Your task to perform on an android device: Find coffee shops on Maps Image 0: 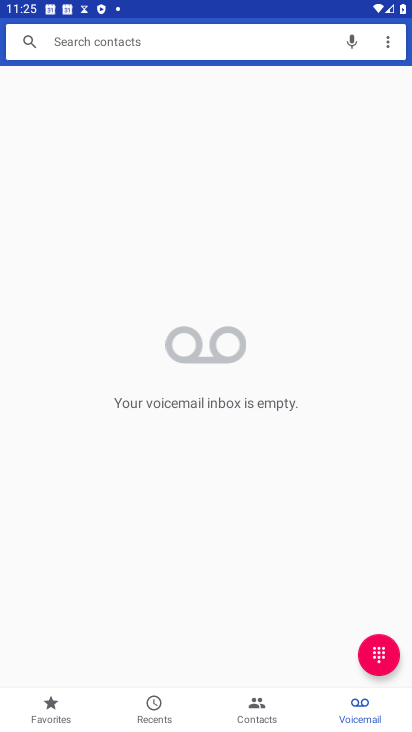
Step 0: drag from (190, 555) to (210, 431)
Your task to perform on an android device: Find coffee shops on Maps Image 1: 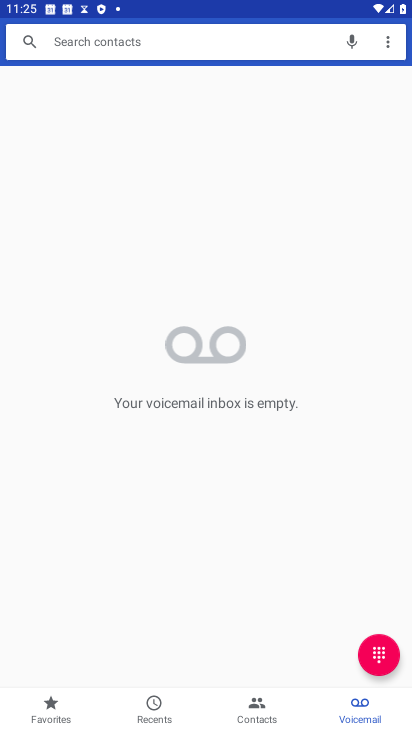
Step 1: click (339, 262)
Your task to perform on an android device: Find coffee shops on Maps Image 2: 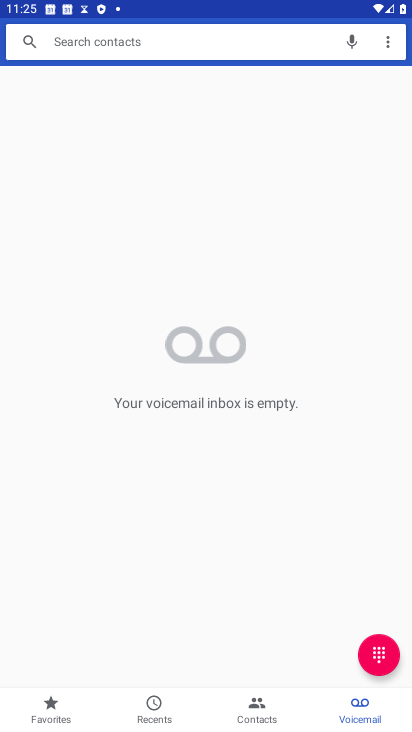
Step 2: press home button
Your task to perform on an android device: Find coffee shops on Maps Image 3: 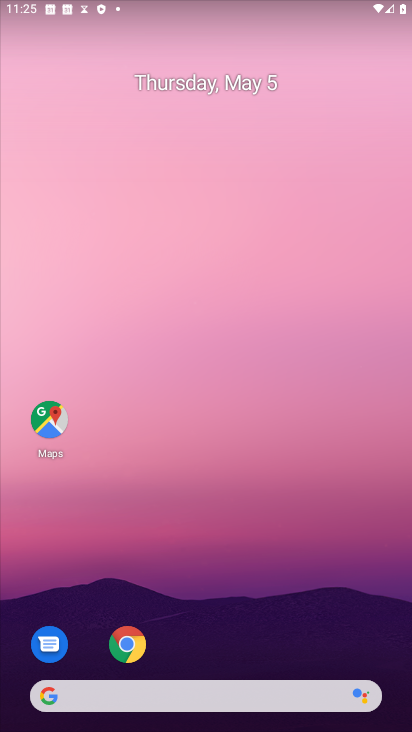
Step 3: drag from (245, 628) to (284, 347)
Your task to perform on an android device: Find coffee shops on Maps Image 4: 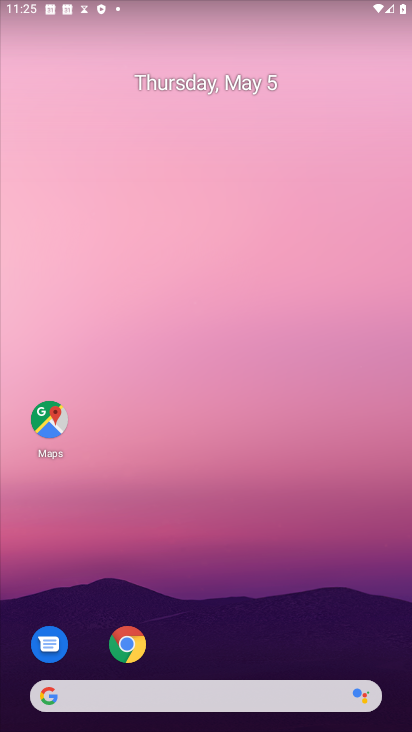
Step 4: drag from (172, 678) to (184, 173)
Your task to perform on an android device: Find coffee shops on Maps Image 5: 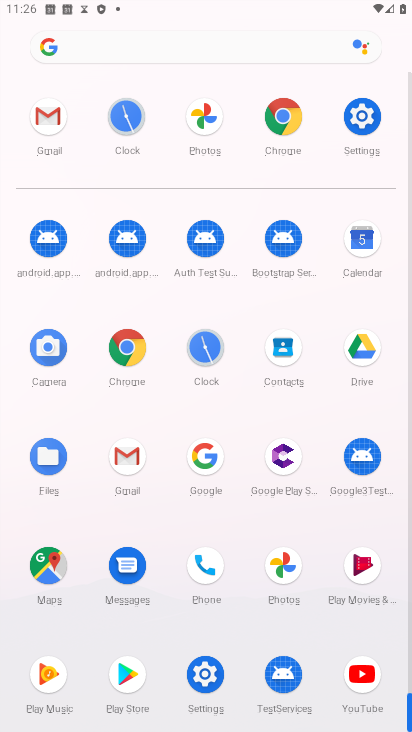
Step 5: click (41, 560)
Your task to perform on an android device: Find coffee shops on Maps Image 6: 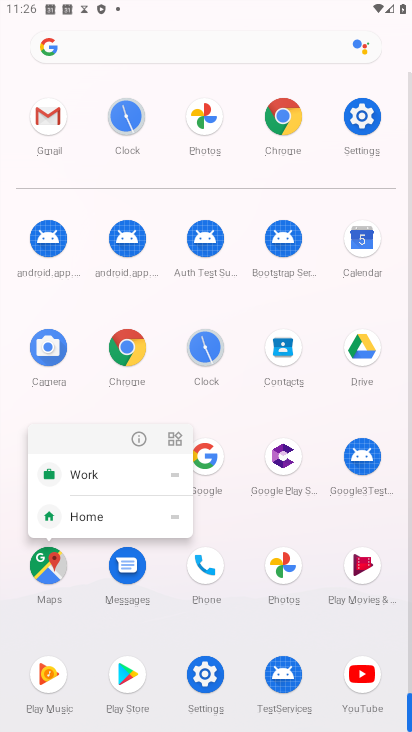
Step 6: click (130, 435)
Your task to perform on an android device: Find coffee shops on Maps Image 7: 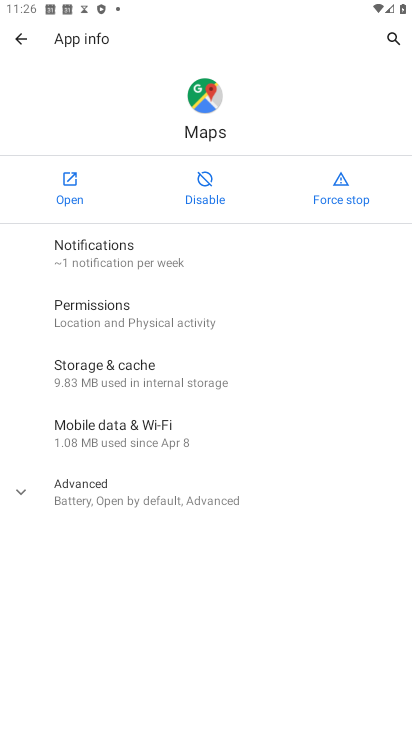
Step 7: click (74, 177)
Your task to perform on an android device: Find coffee shops on Maps Image 8: 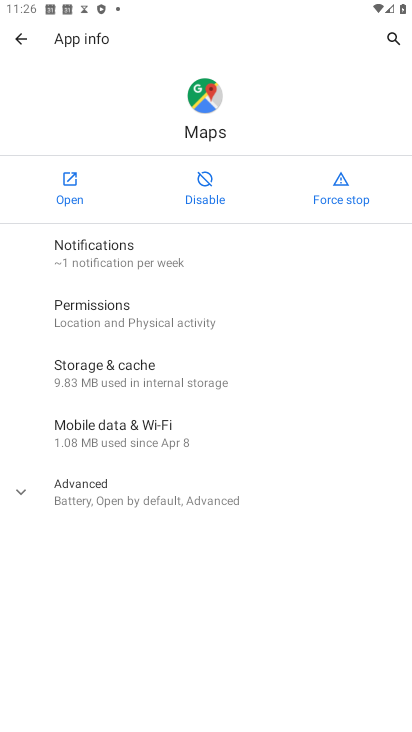
Step 8: click (74, 177)
Your task to perform on an android device: Find coffee shops on Maps Image 9: 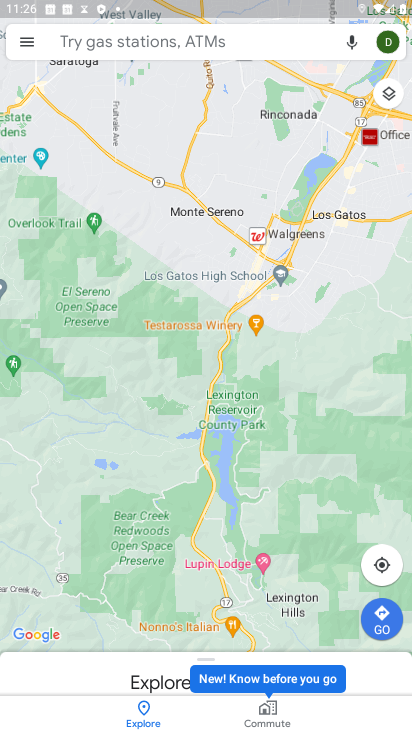
Step 9: click (183, 43)
Your task to perform on an android device: Find coffee shops on Maps Image 10: 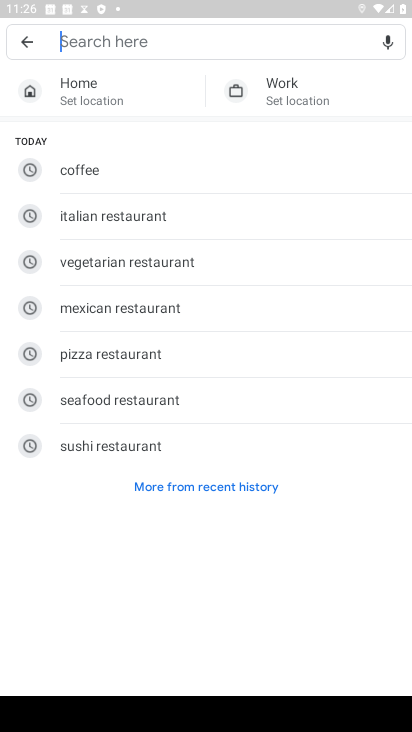
Step 10: type "coffee"
Your task to perform on an android device: Find coffee shops on Maps Image 11: 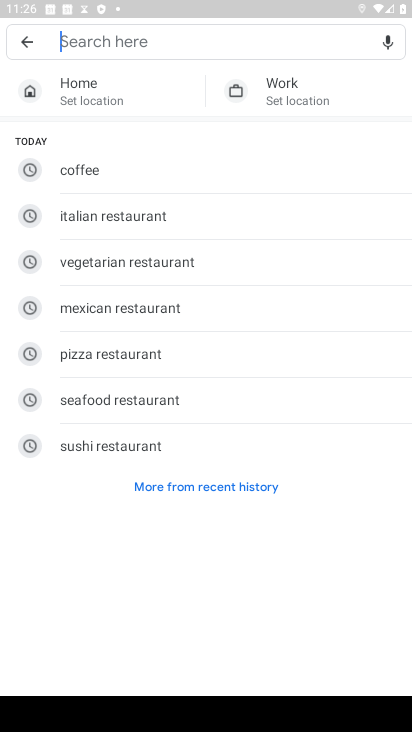
Step 11: click (94, 167)
Your task to perform on an android device: Find coffee shops on Maps Image 12: 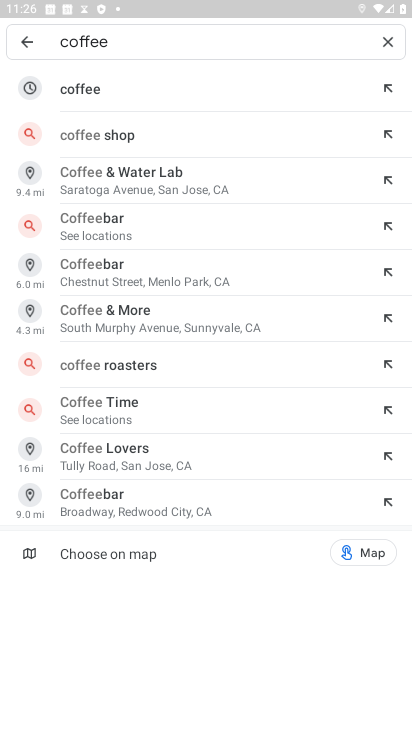
Step 12: click (78, 147)
Your task to perform on an android device: Find coffee shops on Maps Image 13: 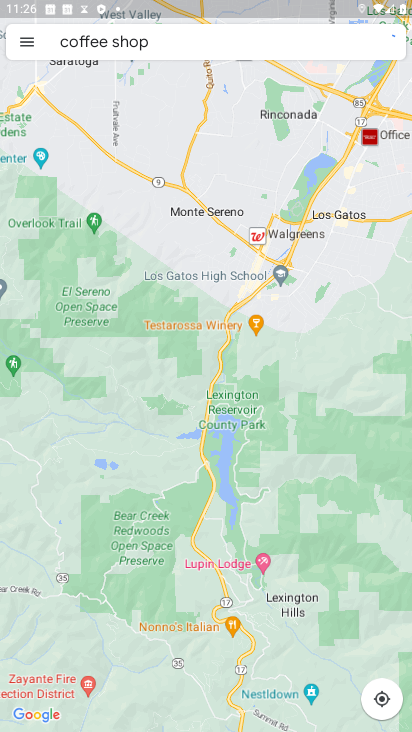
Step 13: drag from (225, 527) to (210, 112)
Your task to perform on an android device: Find coffee shops on Maps Image 14: 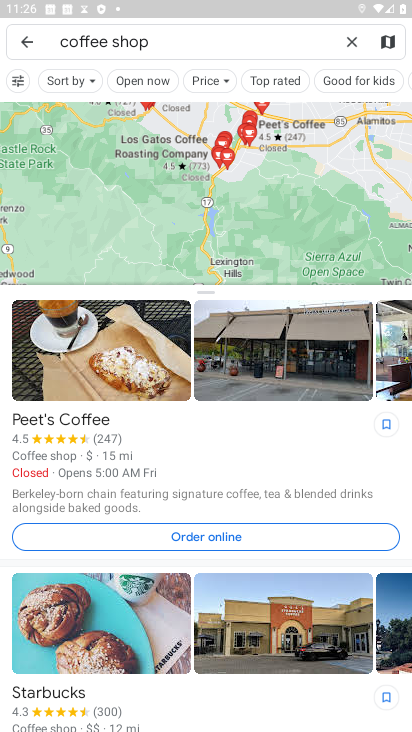
Step 14: drag from (189, 568) to (403, 717)
Your task to perform on an android device: Find coffee shops on Maps Image 15: 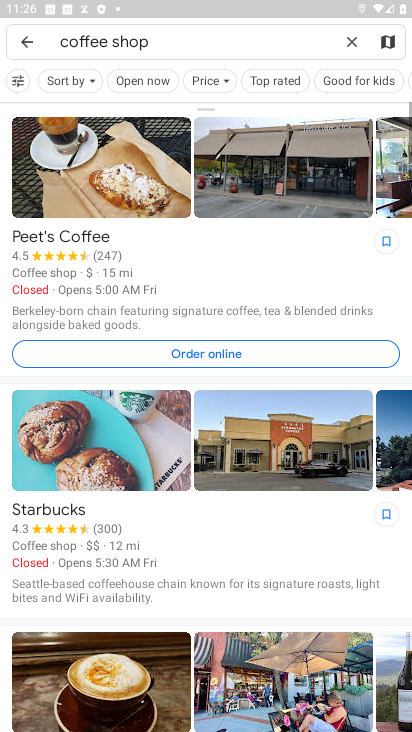
Step 15: drag from (188, 574) to (226, 319)
Your task to perform on an android device: Find coffee shops on Maps Image 16: 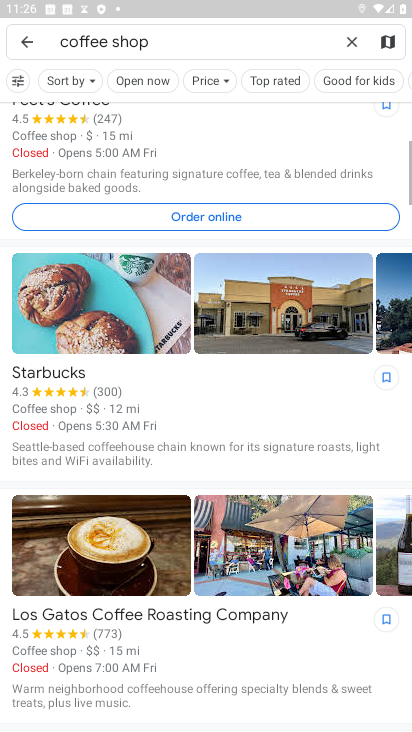
Step 16: drag from (272, 638) to (206, 323)
Your task to perform on an android device: Find coffee shops on Maps Image 17: 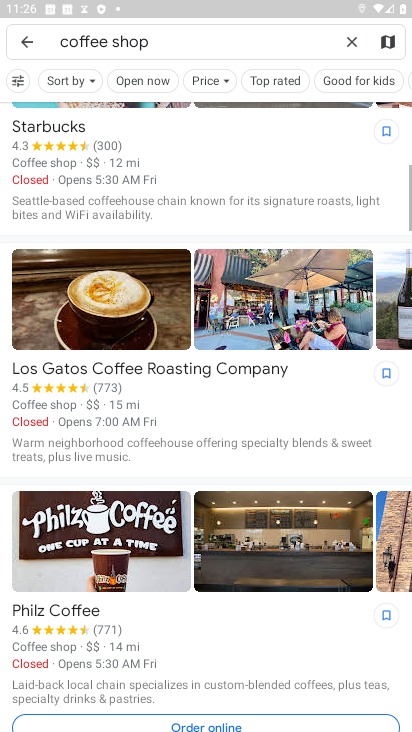
Step 17: drag from (288, 555) to (244, 276)
Your task to perform on an android device: Find coffee shops on Maps Image 18: 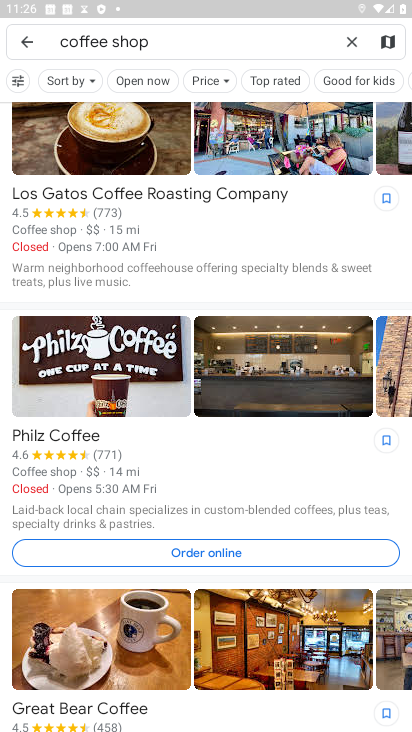
Step 18: drag from (195, 500) to (205, 239)
Your task to perform on an android device: Find coffee shops on Maps Image 19: 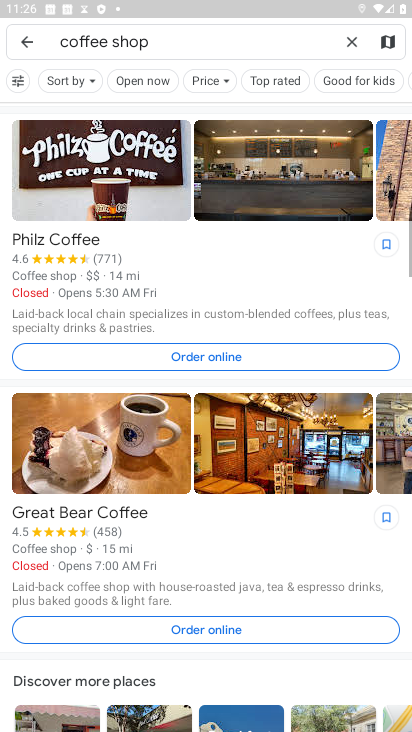
Step 19: drag from (287, 602) to (272, 276)
Your task to perform on an android device: Find coffee shops on Maps Image 20: 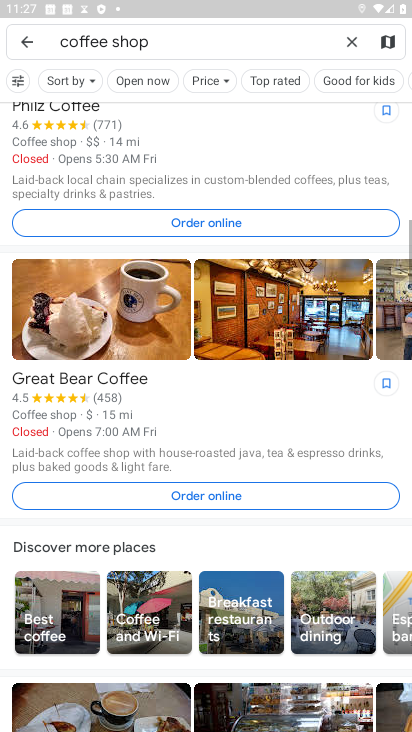
Step 20: drag from (231, 168) to (304, 532)
Your task to perform on an android device: Find coffee shops on Maps Image 21: 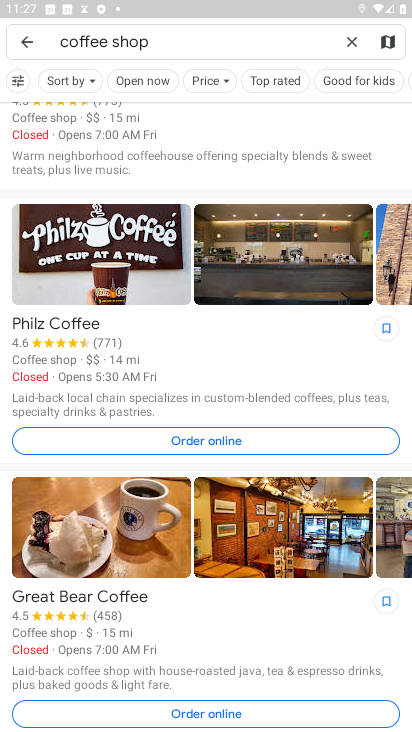
Step 21: click (394, 102)
Your task to perform on an android device: Find coffee shops on Maps Image 22: 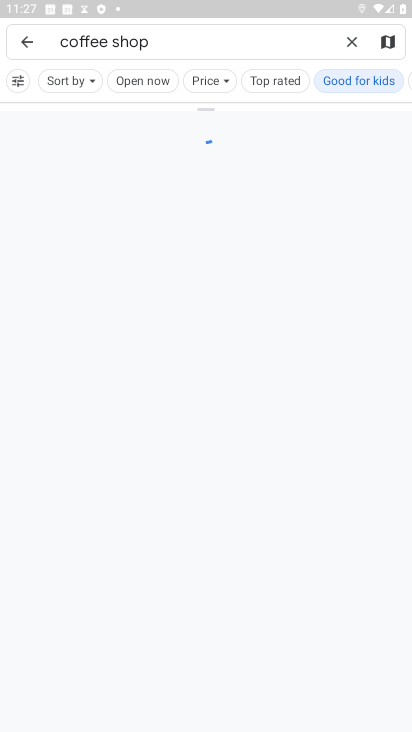
Step 22: drag from (235, 455) to (228, 697)
Your task to perform on an android device: Find coffee shops on Maps Image 23: 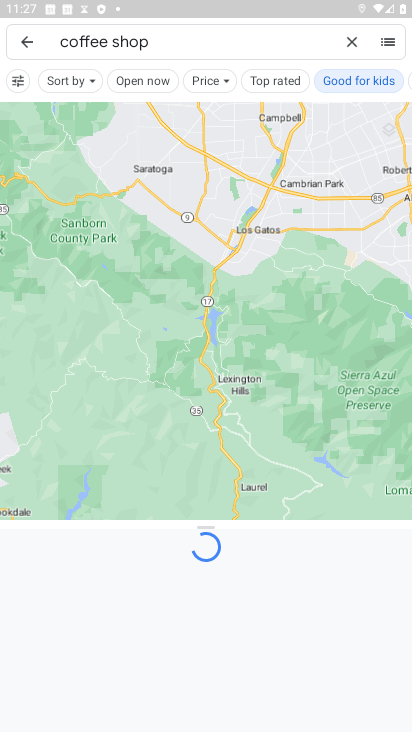
Step 23: click (283, 360)
Your task to perform on an android device: Find coffee shops on Maps Image 24: 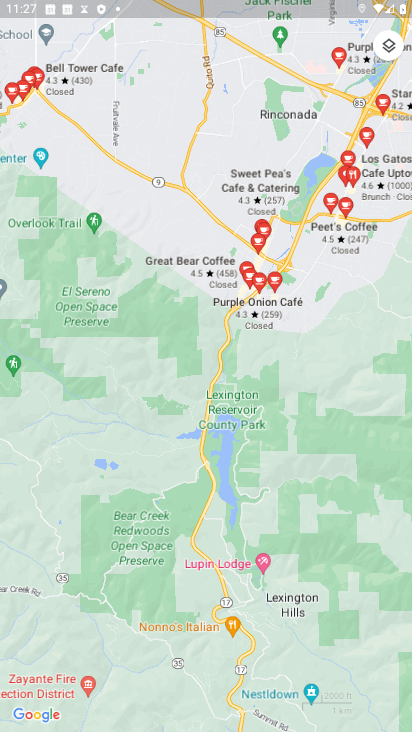
Step 24: drag from (217, 502) to (230, 728)
Your task to perform on an android device: Find coffee shops on Maps Image 25: 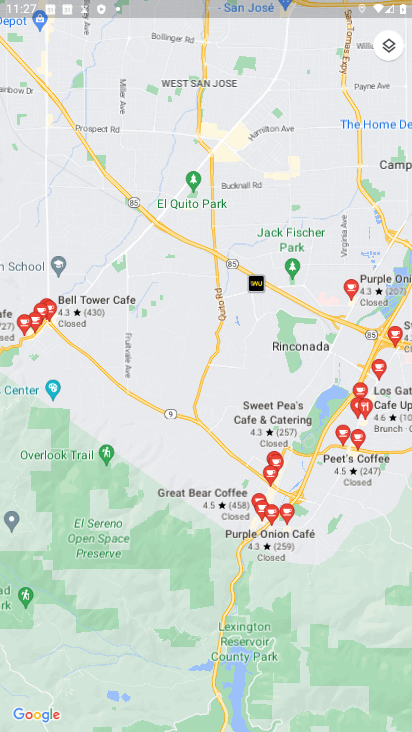
Step 25: click (219, 436)
Your task to perform on an android device: Find coffee shops on Maps Image 26: 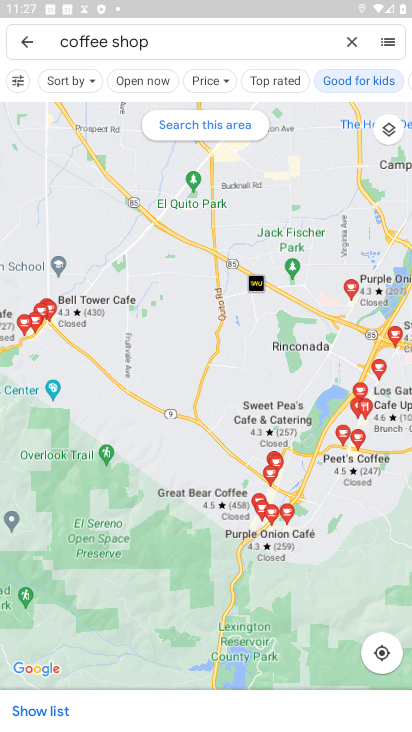
Step 26: task complete